Your task to perform on an android device: open a new tab in the chrome app Image 0: 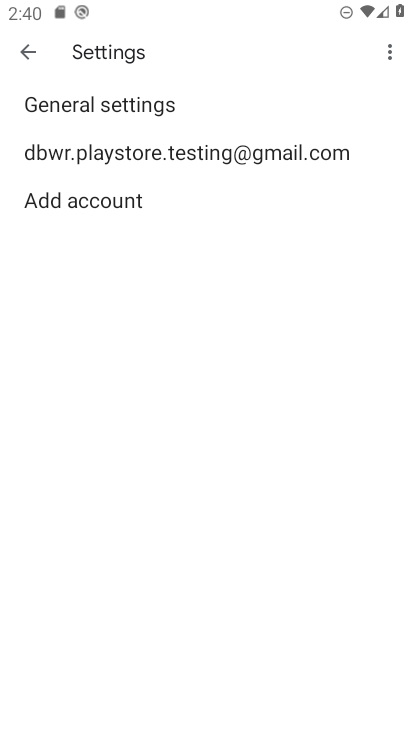
Step 0: press home button
Your task to perform on an android device: open a new tab in the chrome app Image 1: 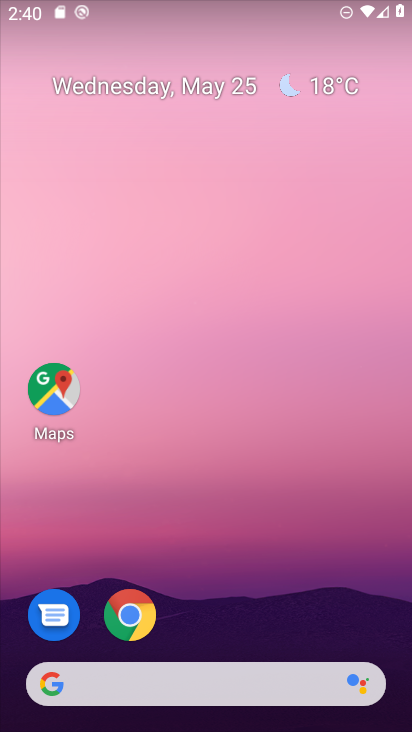
Step 1: click (132, 604)
Your task to perform on an android device: open a new tab in the chrome app Image 2: 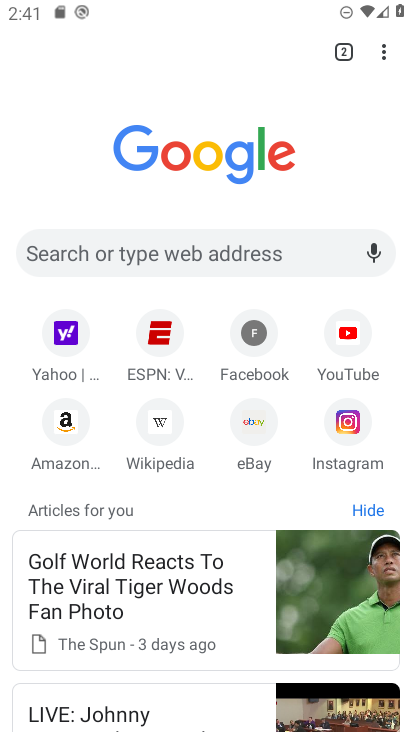
Step 2: click (379, 54)
Your task to perform on an android device: open a new tab in the chrome app Image 3: 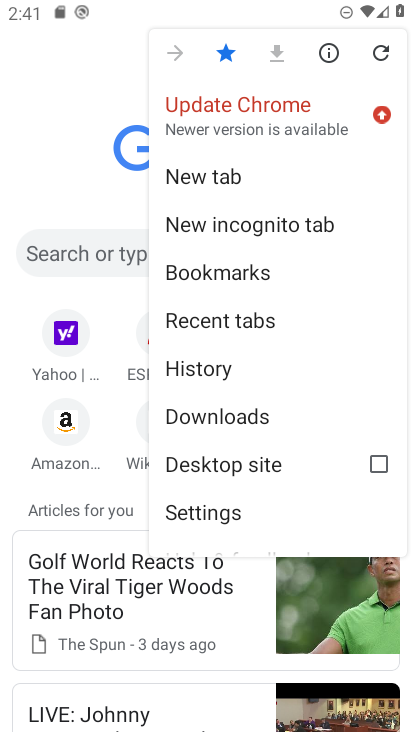
Step 3: click (270, 175)
Your task to perform on an android device: open a new tab in the chrome app Image 4: 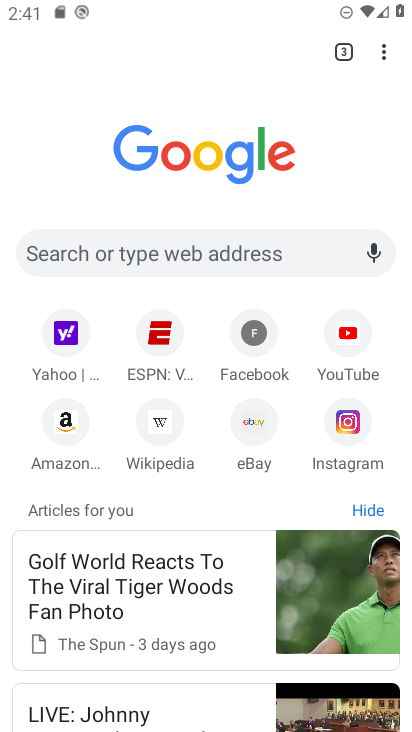
Step 4: task complete